Your task to perform on an android device: star an email in the gmail app Image 0: 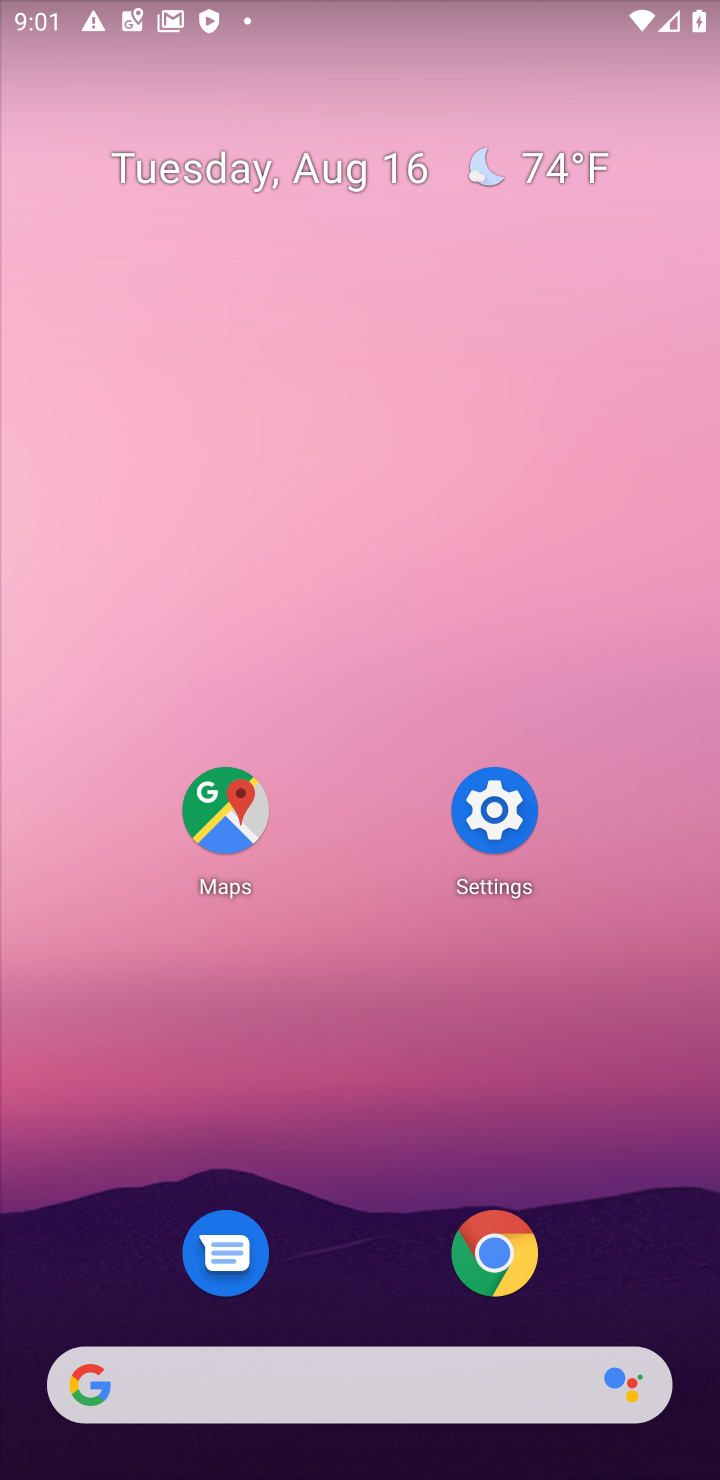
Step 0: press home button
Your task to perform on an android device: star an email in the gmail app Image 1: 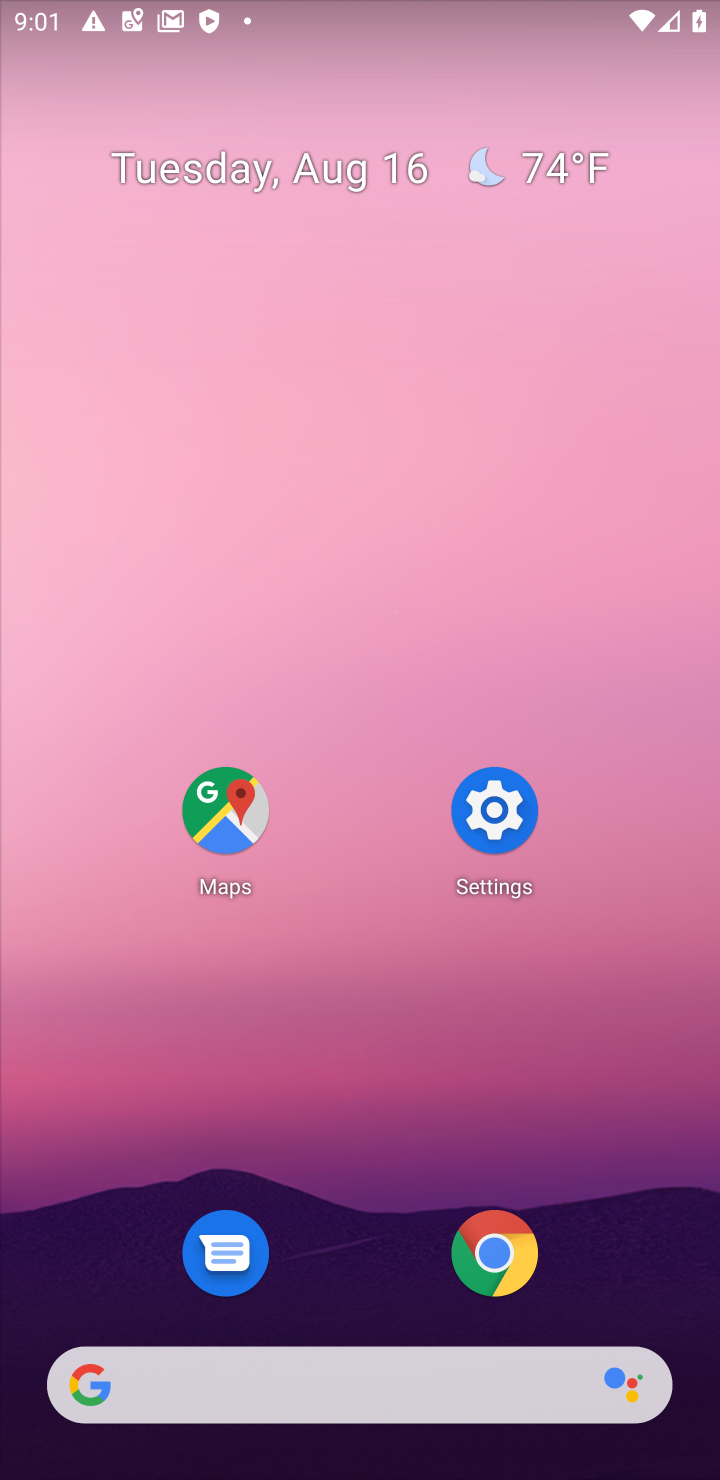
Step 1: drag from (337, 1359) to (620, 56)
Your task to perform on an android device: star an email in the gmail app Image 2: 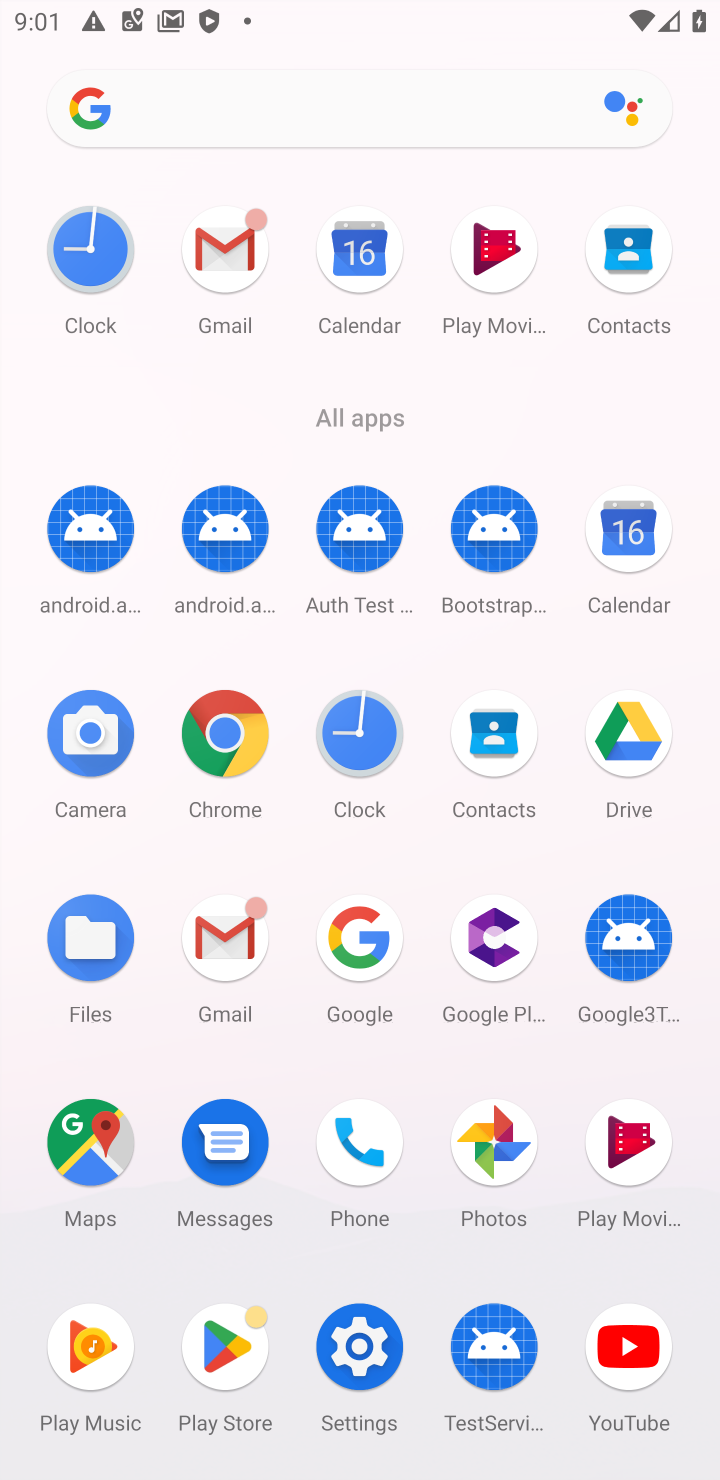
Step 2: click (218, 249)
Your task to perform on an android device: star an email in the gmail app Image 3: 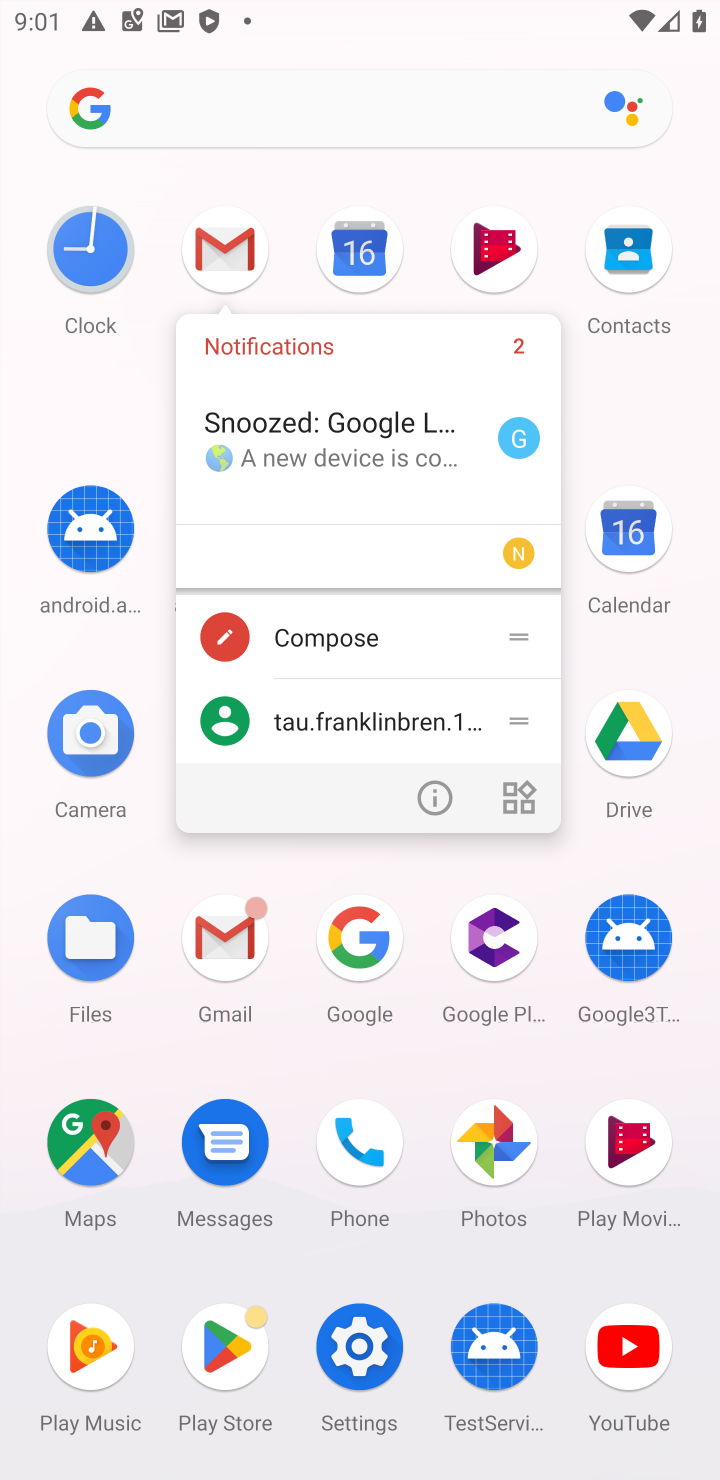
Step 3: click (218, 247)
Your task to perform on an android device: star an email in the gmail app Image 4: 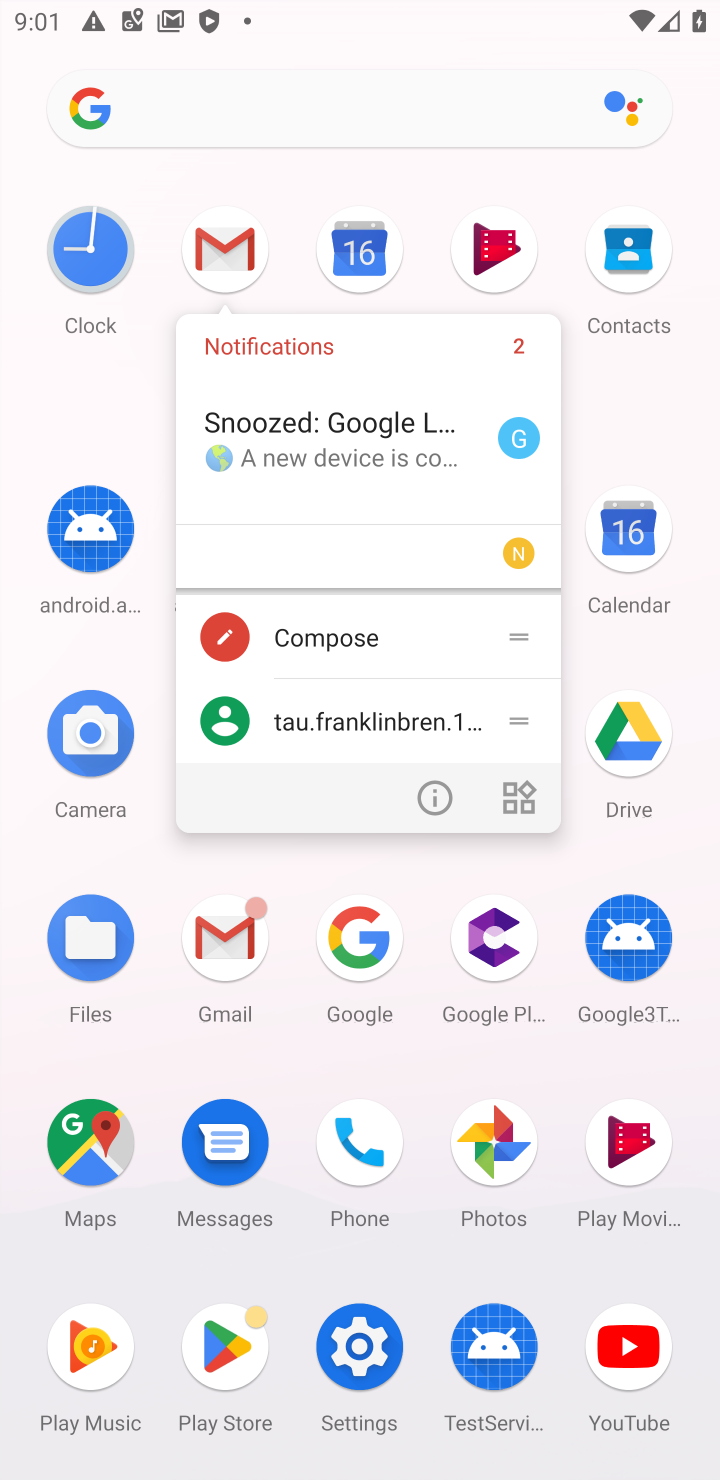
Step 4: click (227, 242)
Your task to perform on an android device: star an email in the gmail app Image 5: 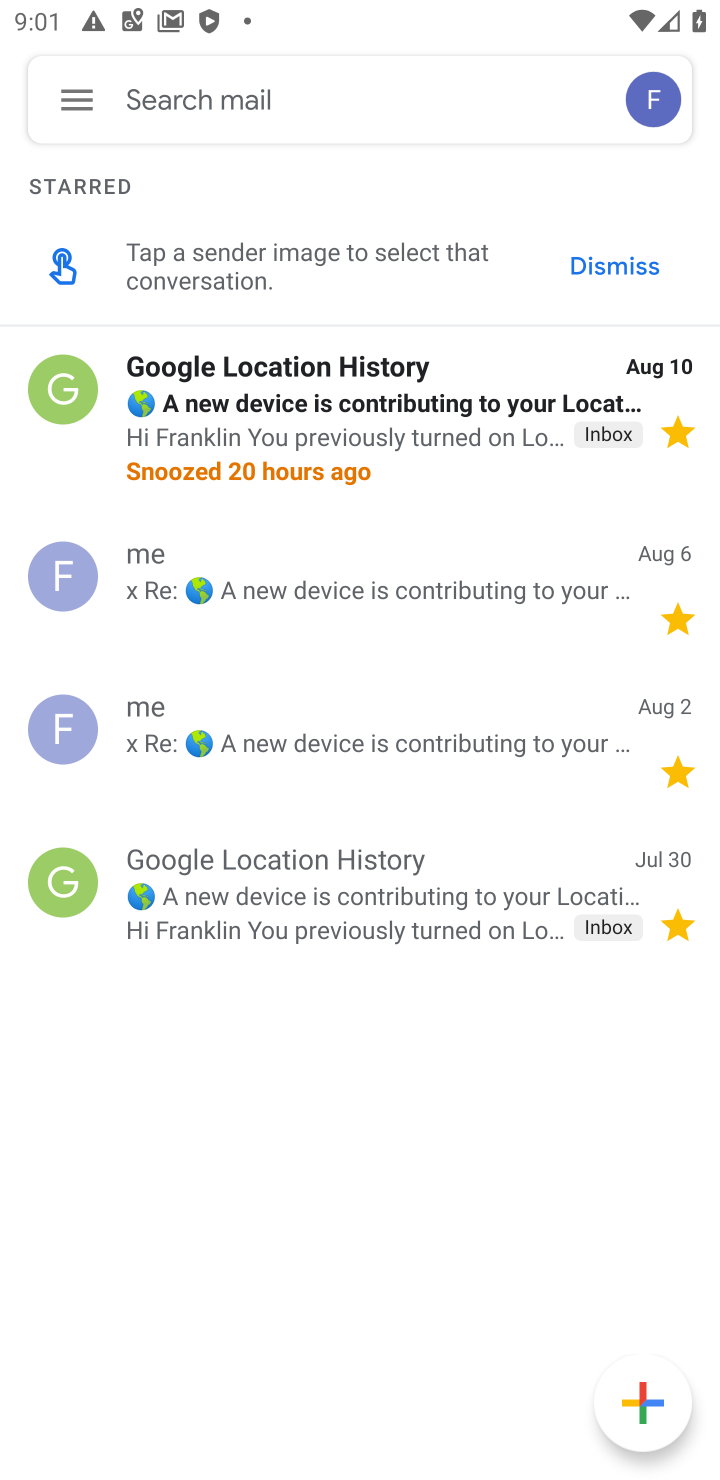
Step 5: click (88, 98)
Your task to perform on an android device: star an email in the gmail app Image 6: 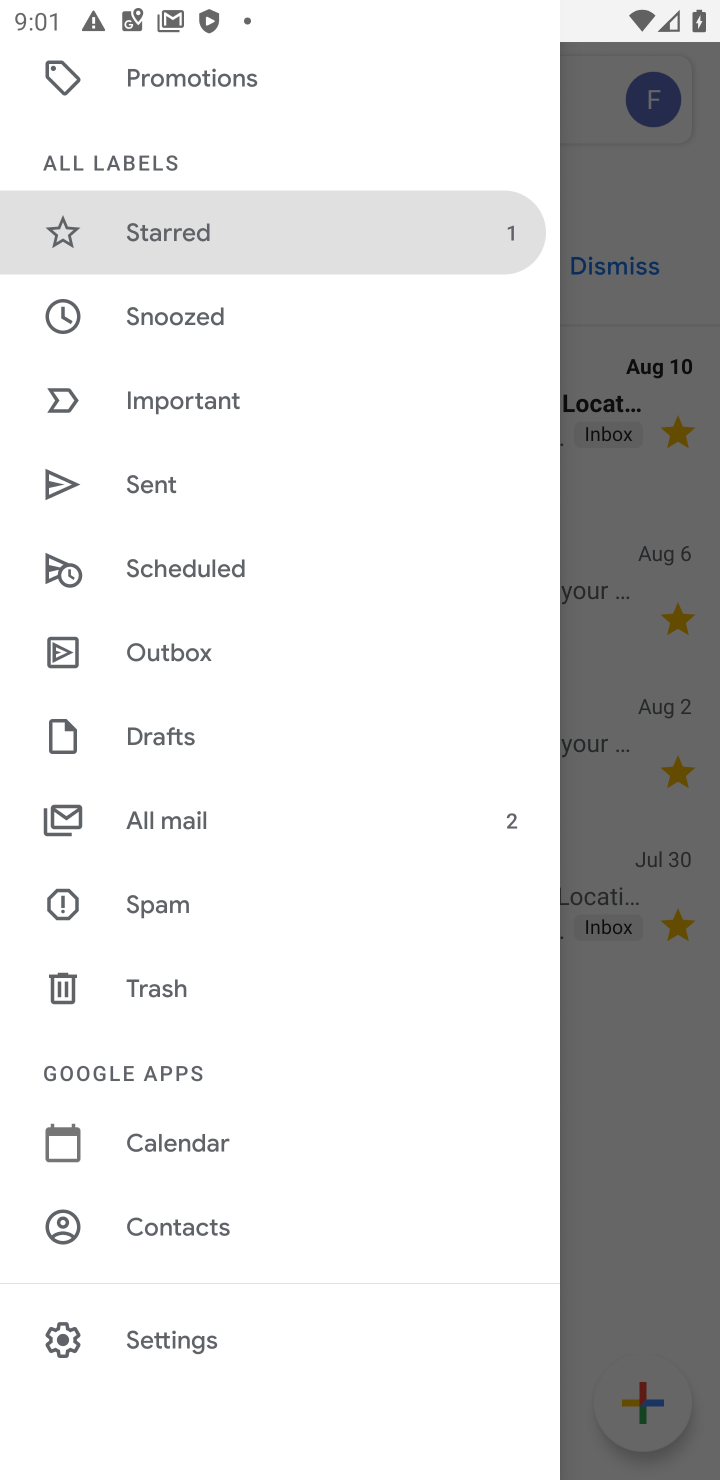
Step 6: click (216, 811)
Your task to perform on an android device: star an email in the gmail app Image 7: 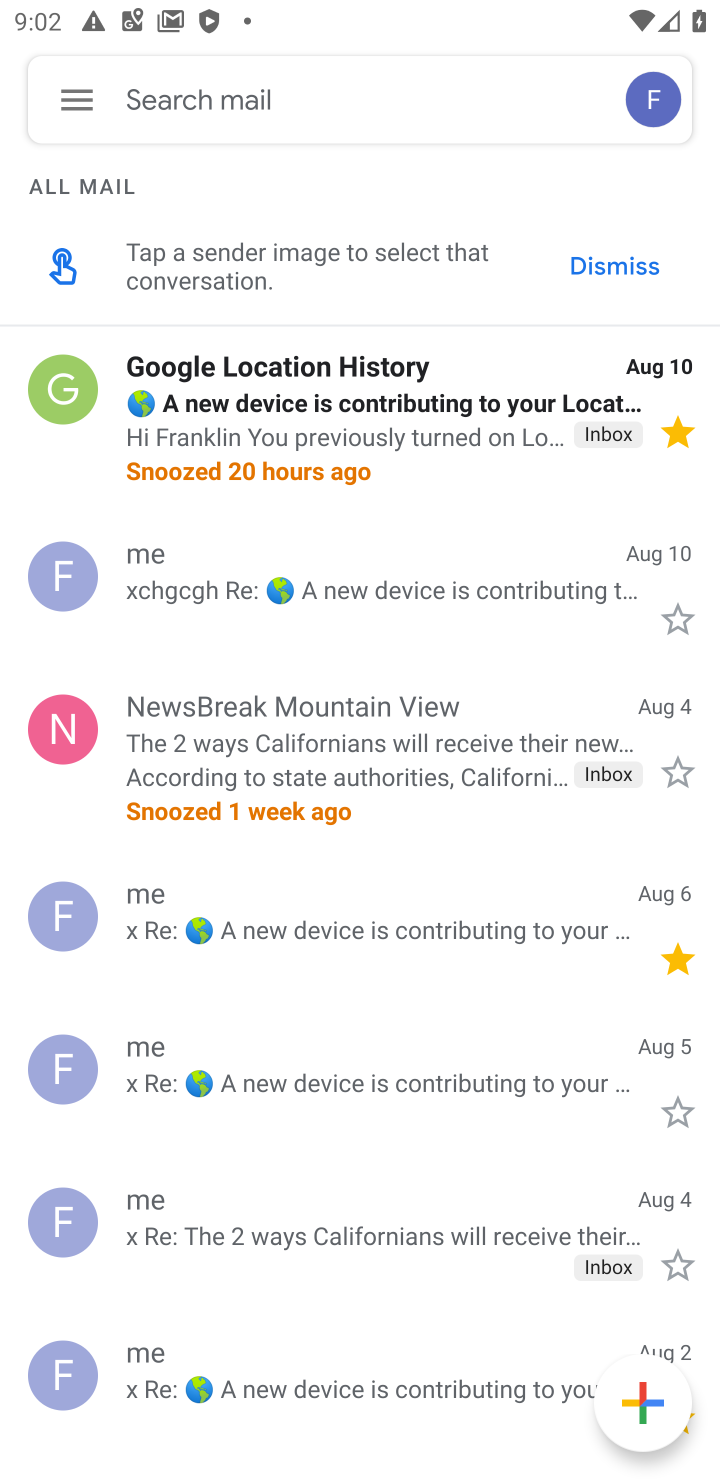
Step 7: click (72, 576)
Your task to perform on an android device: star an email in the gmail app Image 8: 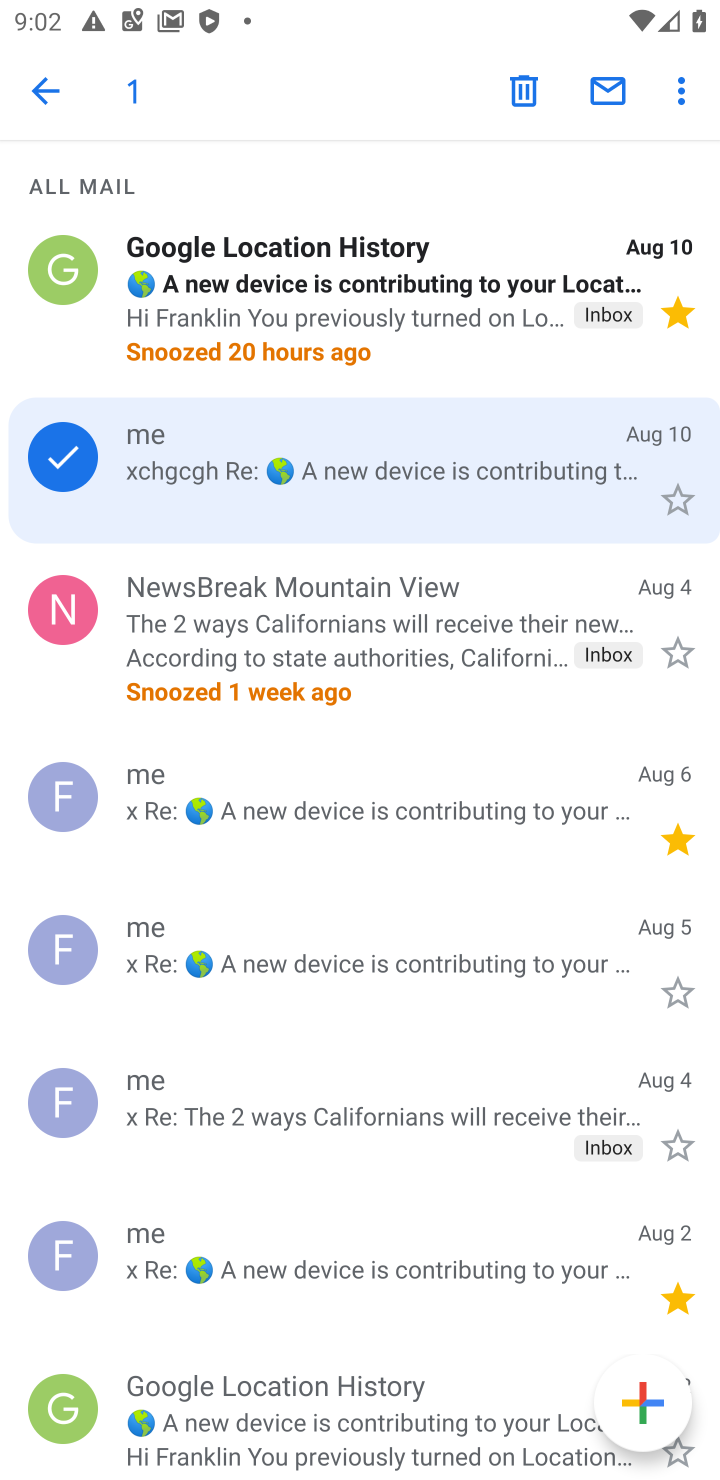
Step 8: click (679, 92)
Your task to perform on an android device: star an email in the gmail app Image 9: 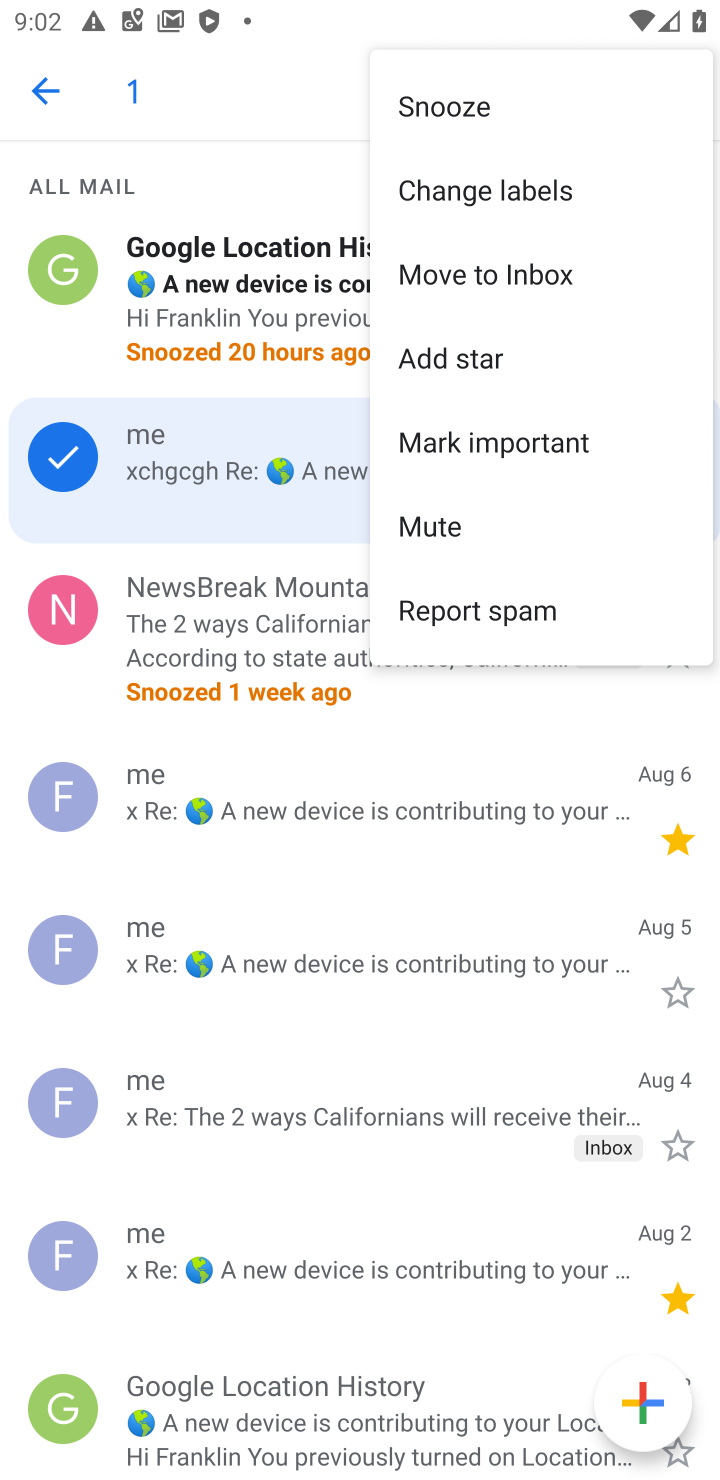
Step 9: click (446, 353)
Your task to perform on an android device: star an email in the gmail app Image 10: 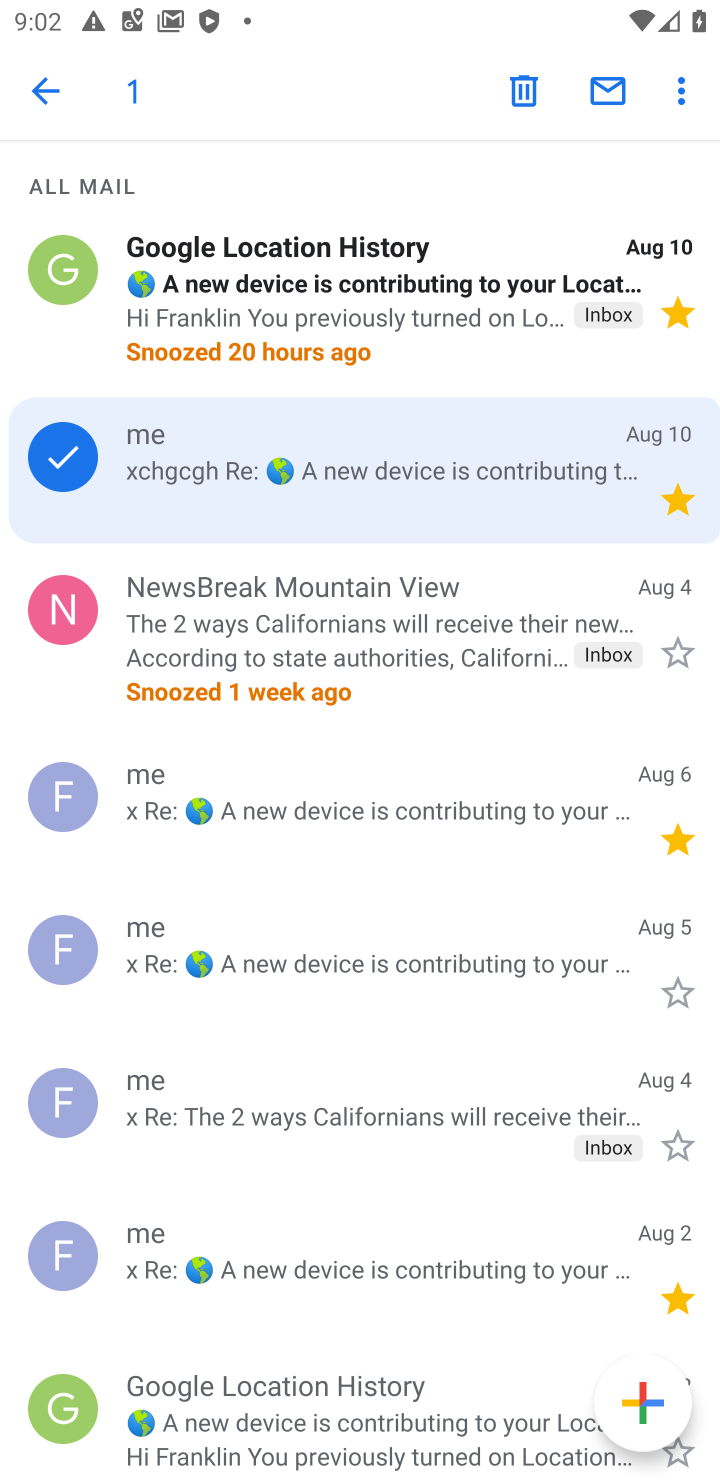
Step 10: click (85, 460)
Your task to perform on an android device: star an email in the gmail app Image 11: 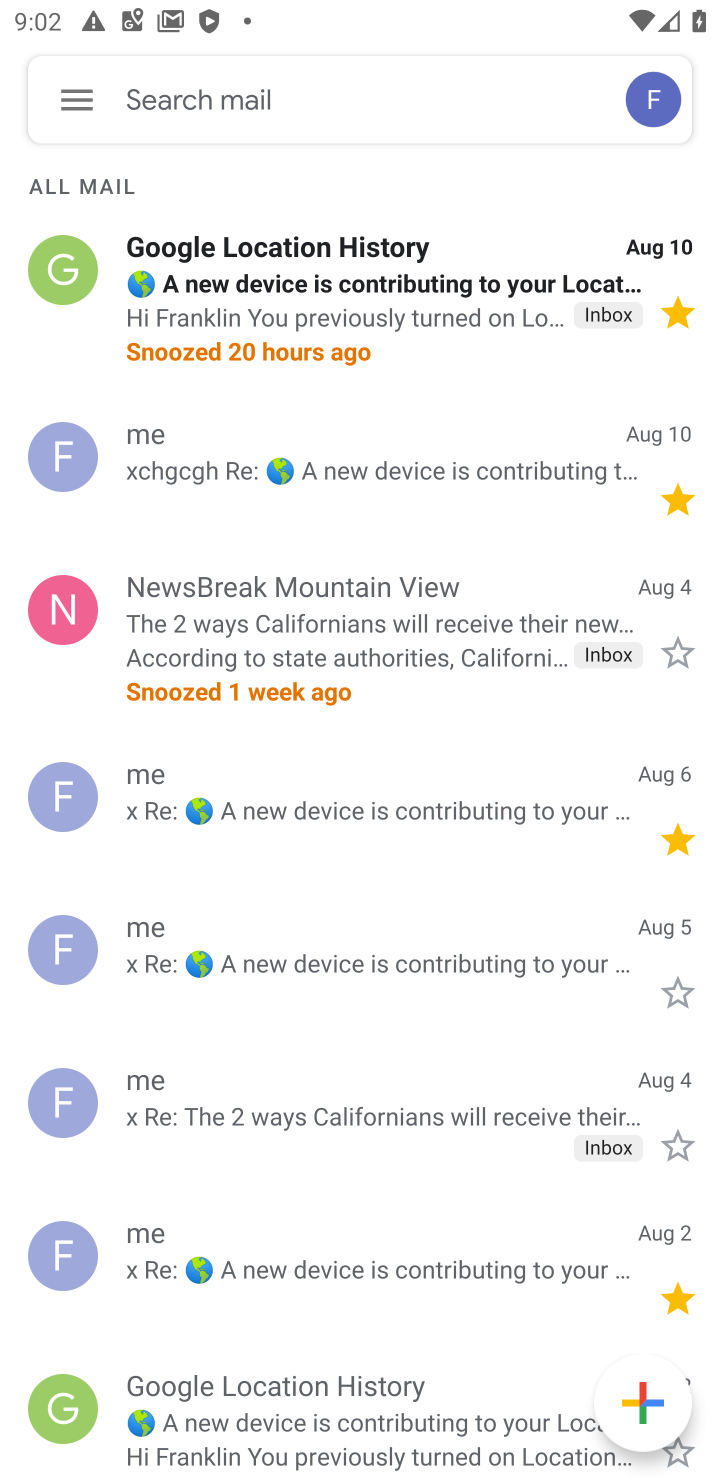
Step 11: task complete